Your task to perform on an android device: Set the phone to "Do not disturb". Image 0: 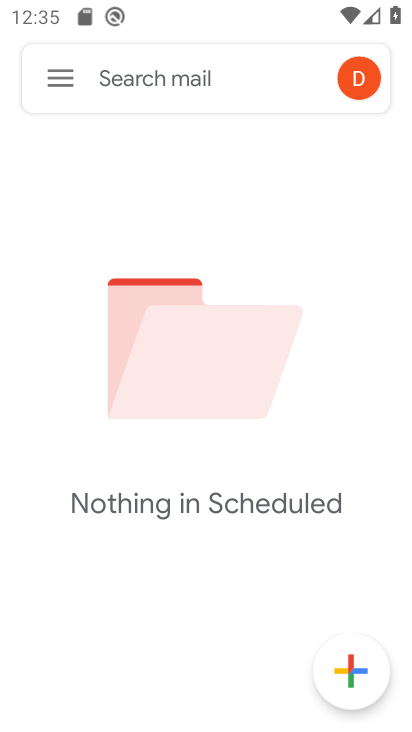
Step 0: press home button
Your task to perform on an android device: Set the phone to "Do not disturb". Image 1: 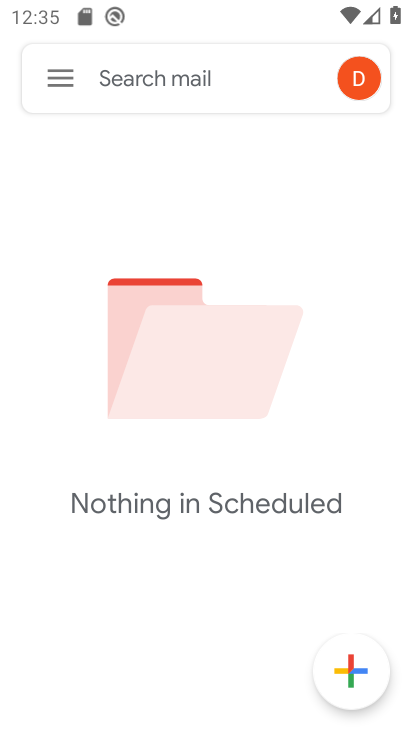
Step 1: press home button
Your task to perform on an android device: Set the phone to "Do not disturb". Image 2: 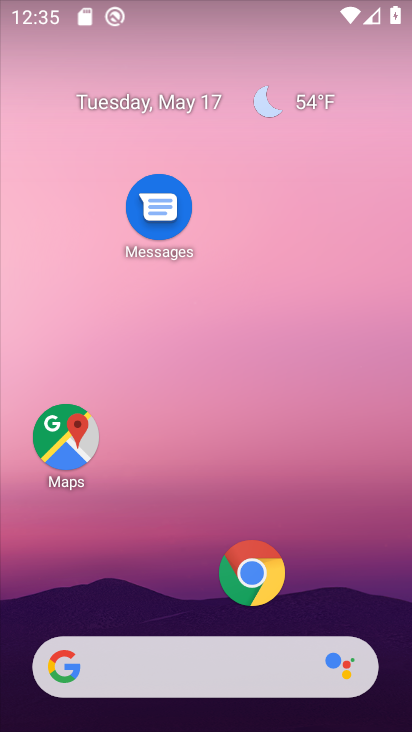
Step 2: drag from (206, 4) to (187, 603)
Your task to perform on an android device: Set the phone to "Do not disturb". Image 3: 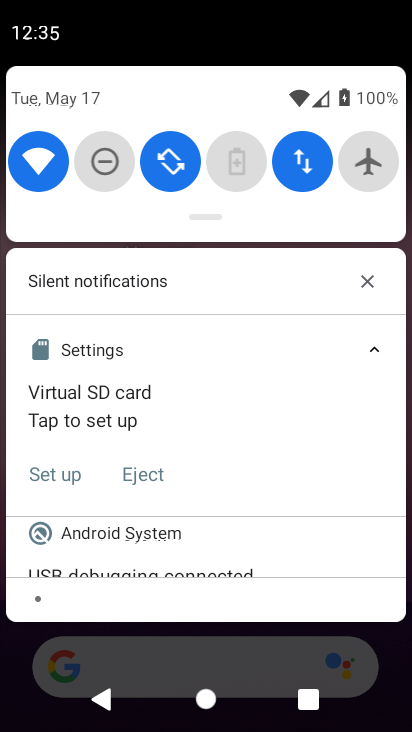
Step 3: click (106, 159)
Your task to perform on an android device: Set the phone to "Do not disturb". Image 4: 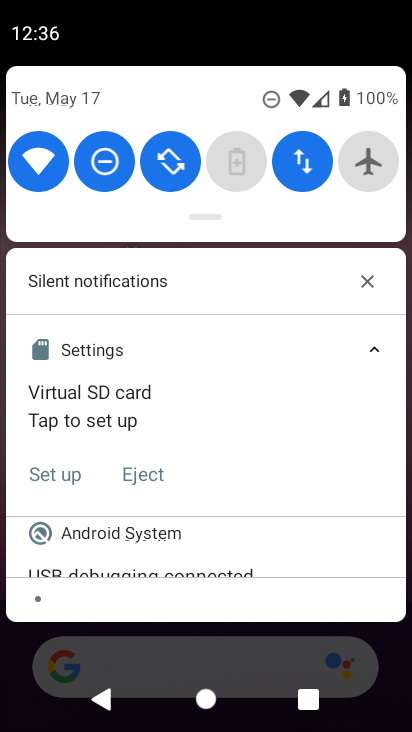
Step 4: task complete